Your task to perform on an android device: Add "usb-c" to the cart on bestbuy.com Image 0: 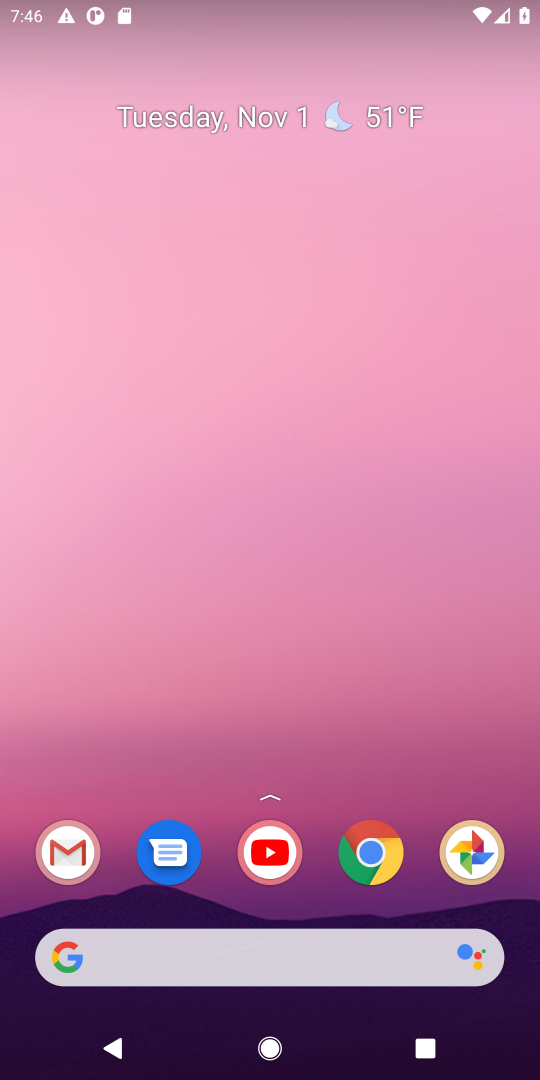
Step 0: drag from (312, 920) to (399, 278)
Your task to perform on an android device: Add "usb-c" to the cart on bestbuy.com Image 1: 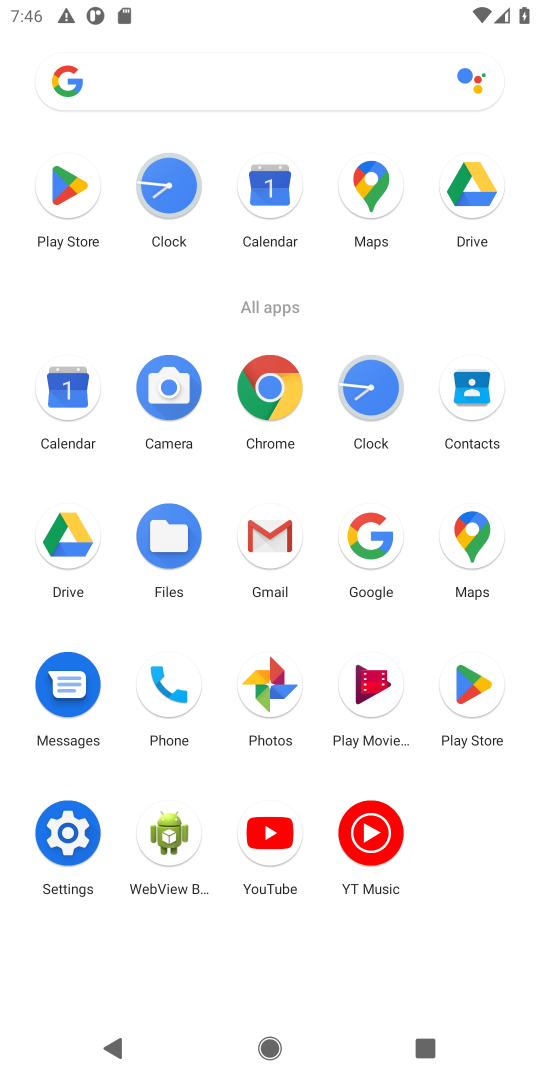
Step 1: click (380, 566)
Your task to perform on an android device: Add "usb-c" to the cart on bestbuy.com Image 2: 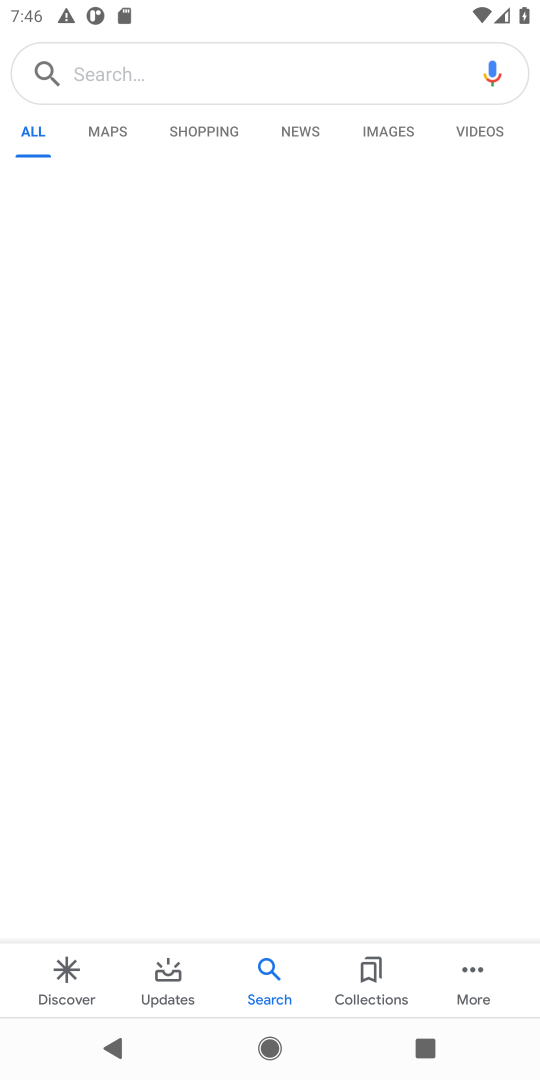
Step 2: click (267, 79)
Your task to perform on an android device: Add "usb-c" to the cart on bestbuy.com Image 3: 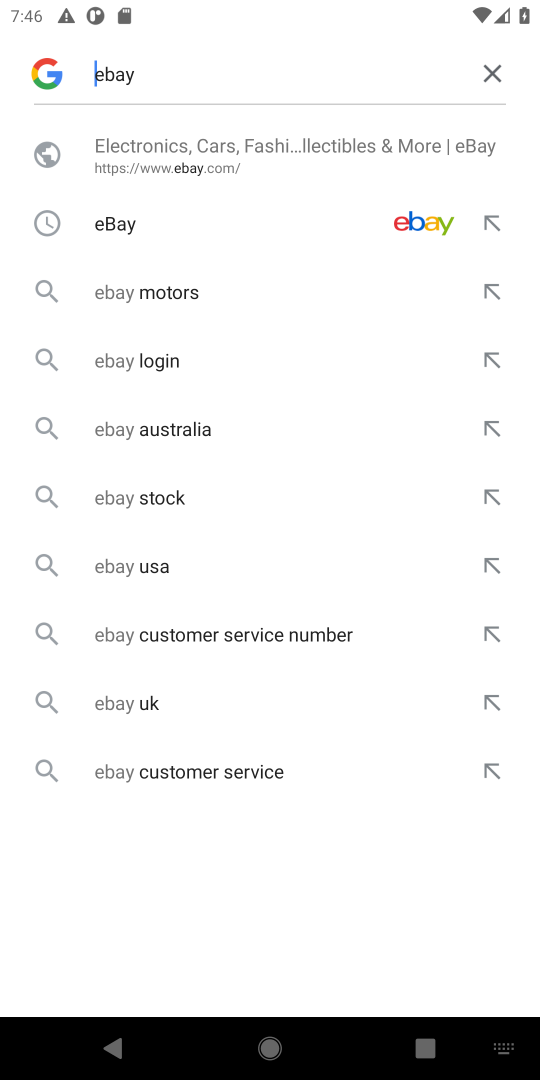
Step 3: click (488, 66)
Your task to perform on an android device: Add "usb-c" to the cart on bestbuy.com Image 4: 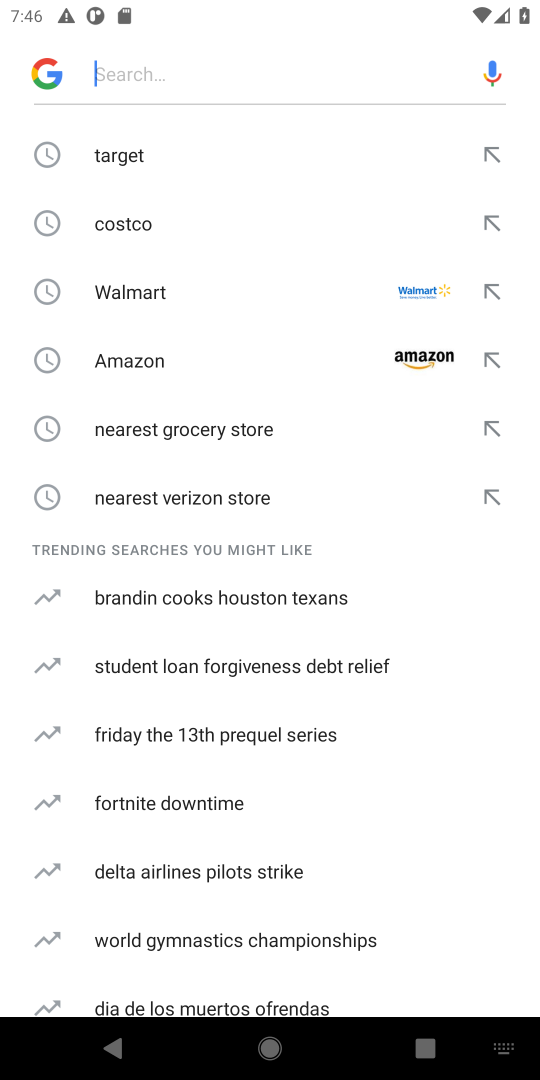
Step 4: type "bestbuy.com"
Your task to perform on an android device: Add "usb-c" to the cart on bestbuy.com Image 5: 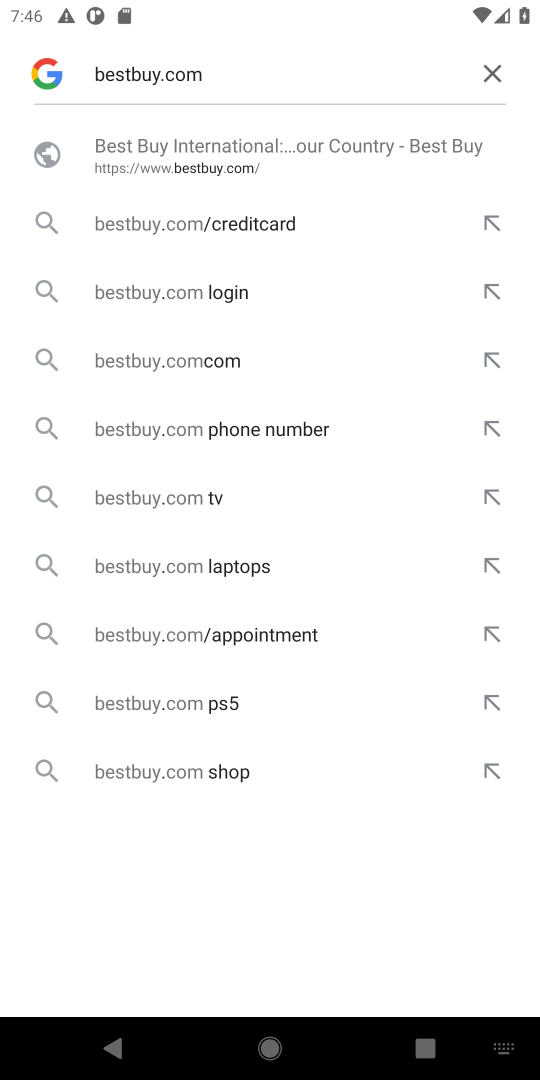
Step 5: click (286, 157)
Your task to perform on an android device: Add "usb-c" to the cart on bestbuy.com Image 6: 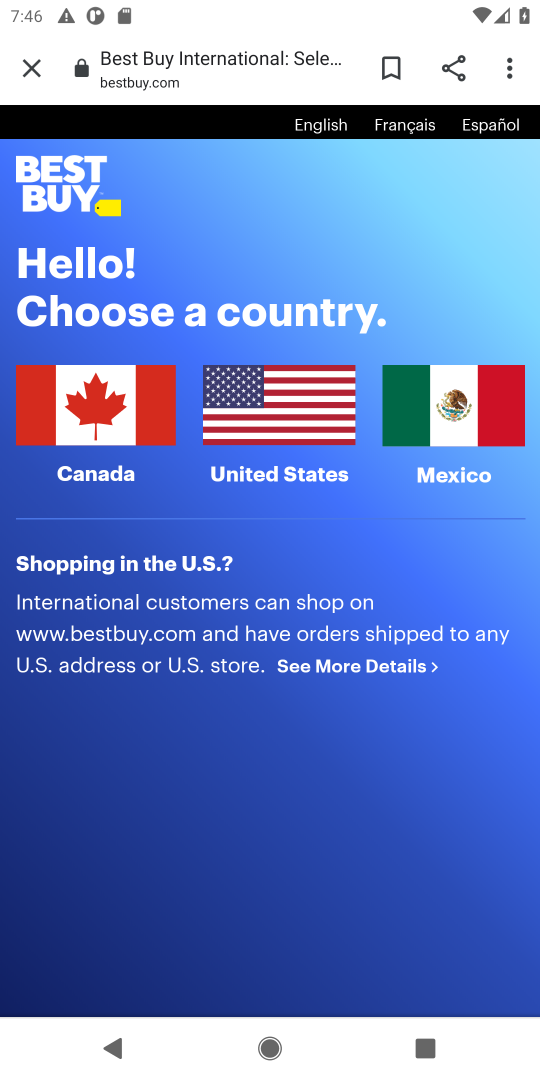
Step 6: click (231, 403)
Your task to perform on an android device: Add "usb-c" to the cart on bestbuy.com Image 7: 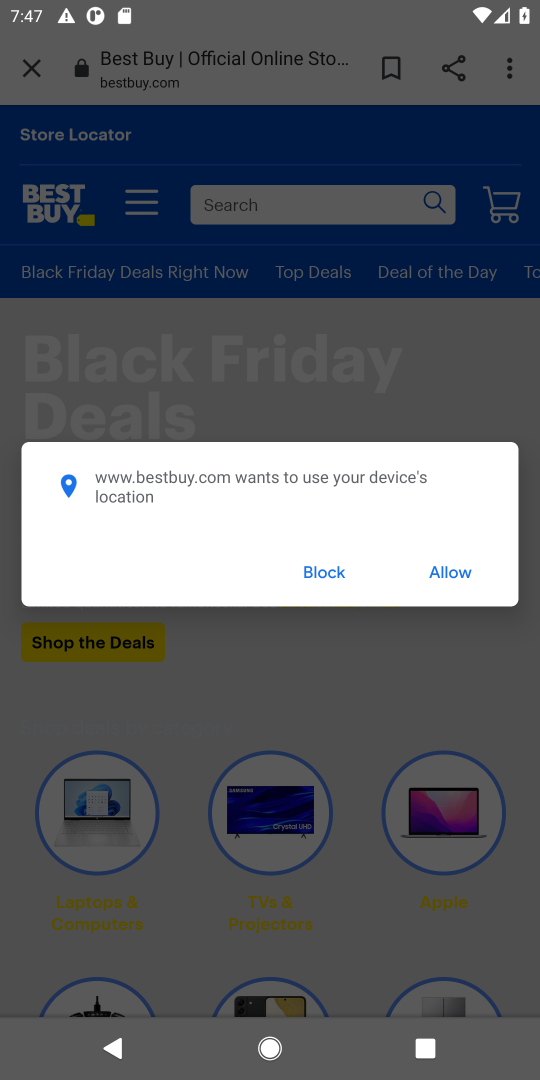
Step 7: click (312, 570)
Your task to perform on an android device: Add "usb-c" to the cart on bestbuy.com Image 8: 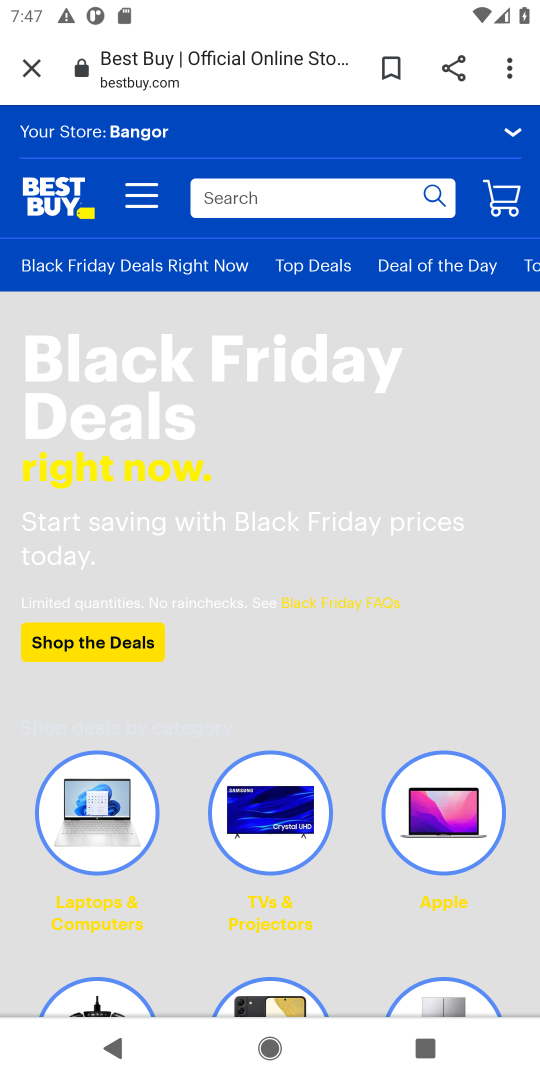
Step 8: click (348, 183)
Your task to perform on an android device: Add "usb-c" to the cart on bestbuy.com Image 9: 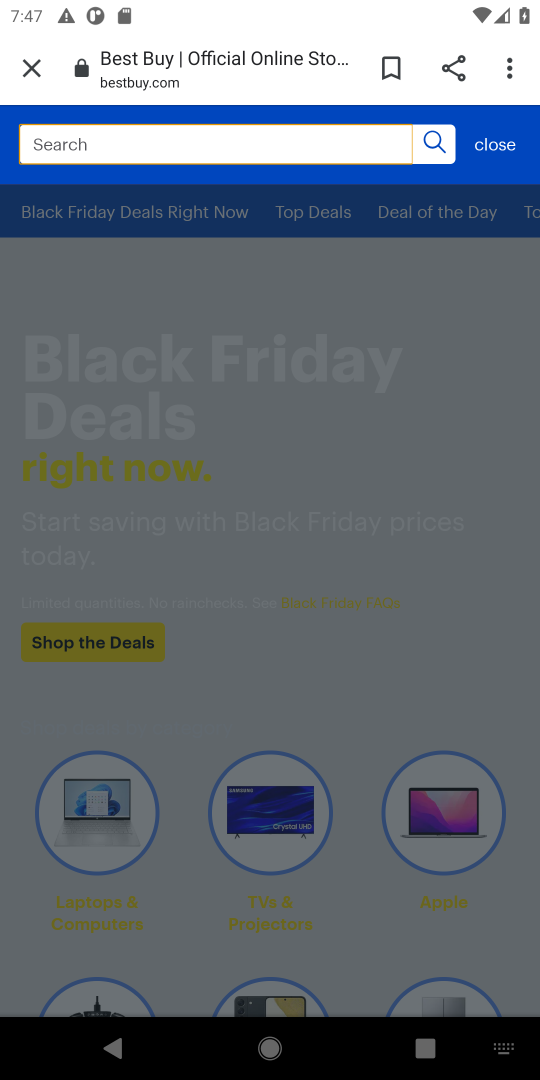
Step 9: type "usb-c"
Your task to perform on an android device: Add "usb-c" to the cart on bestbuy.com Image 10: 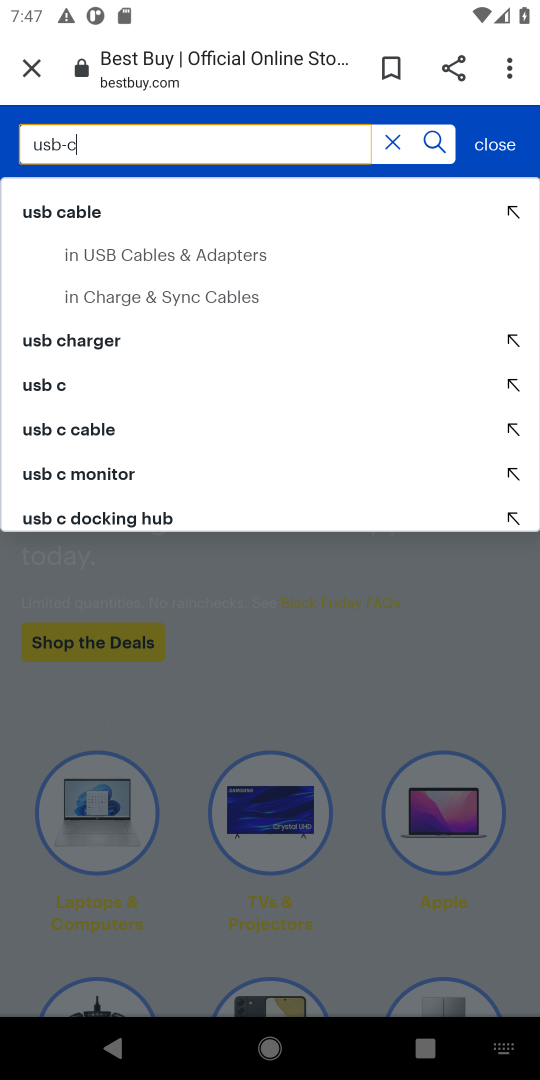
Step 10: click (86, 215)
Your task to perform on an android device: Add "usb-c" to the cart on bestbuy.com Image 11: 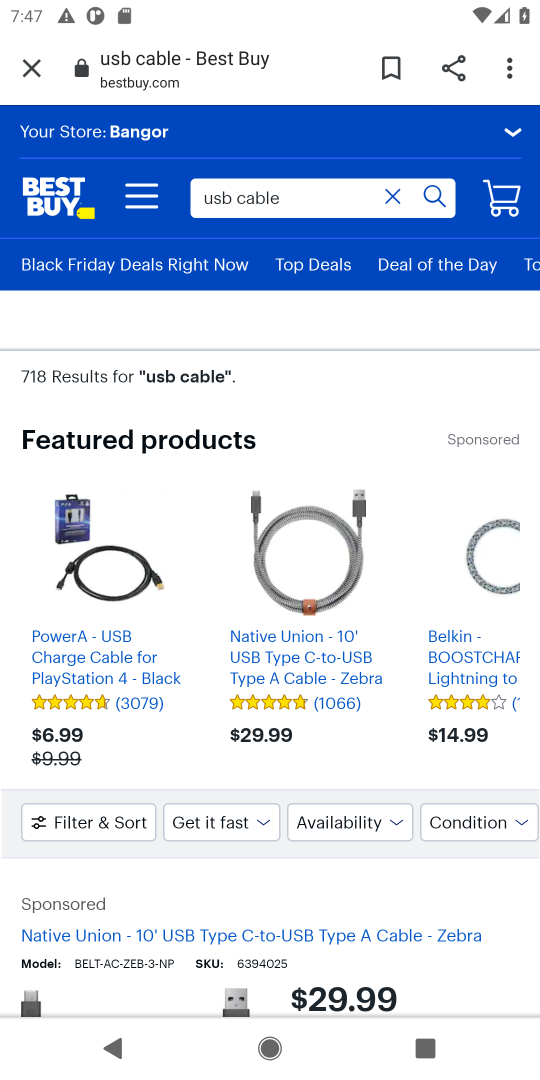
Step 11: drag from (284, 648) to (284, 591)
Your task to perform on an android device: Add "usb-c" to the cart on bestbuy.com Image 12: 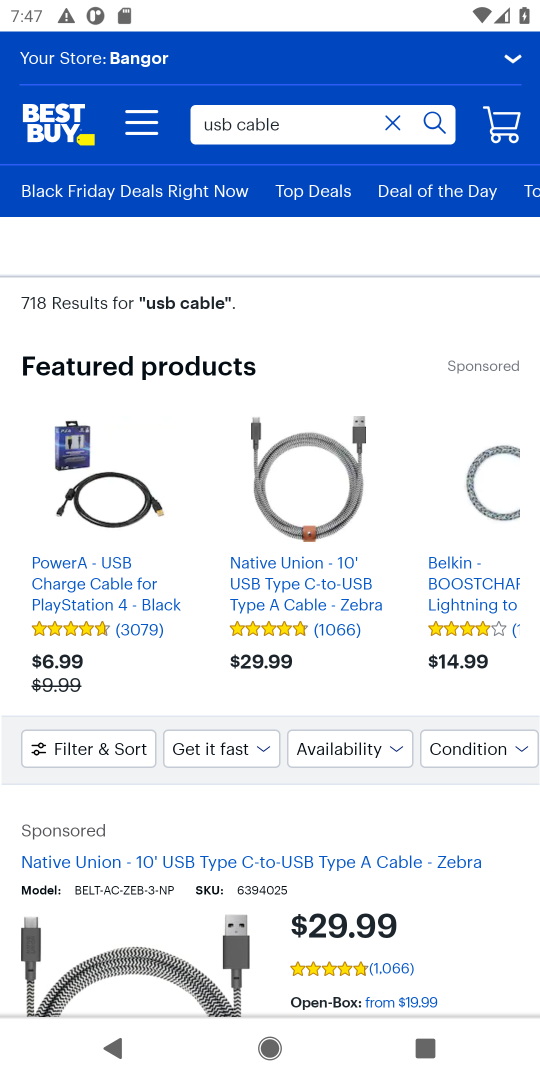
Step 12: drag from (284, 962) to (284, 719)
Your task to perform on an android device: Add "usb-c" to the cart on bestbuy.com Image 13: 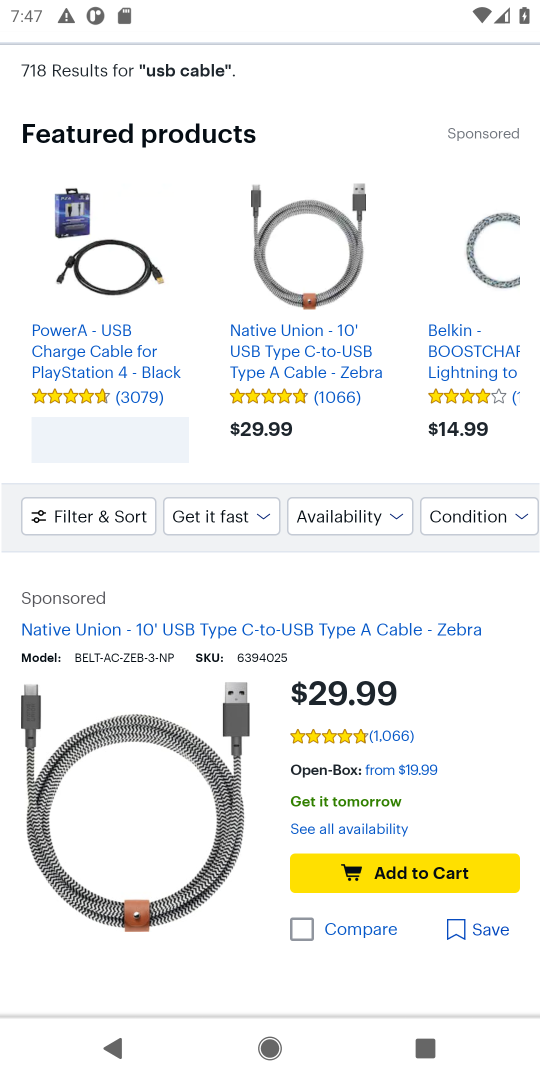
Step 13: click (387, 872)
Your task to perform on an android device: Add "usb-c" to the cart on bestbuy.com Image 14: 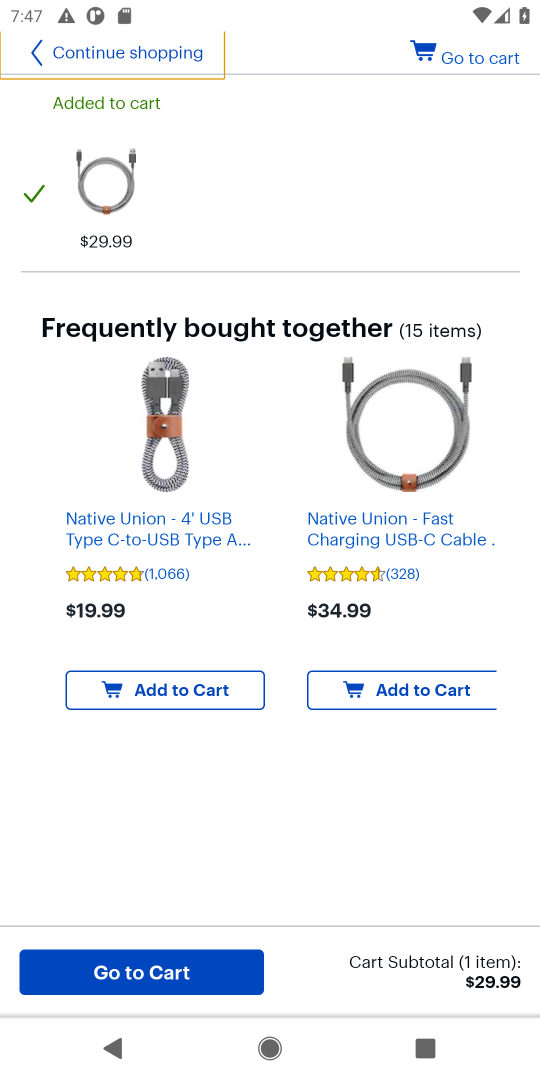
Step 14: task complete